Your task to perform on an android device: Open maps Image 0: 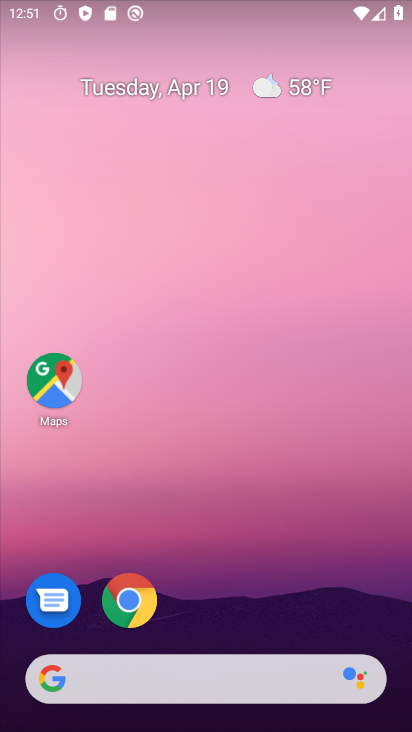
Step 0: drag from (210, 701) to (175, 314)
Your task to perform on an android device: Open maps Image 1: 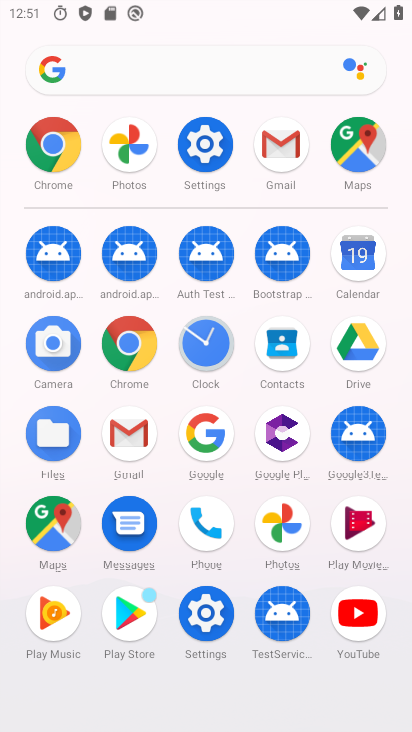
Step 1: click (334, 151)
Your task to perform on an android device: Open maps Image 2: 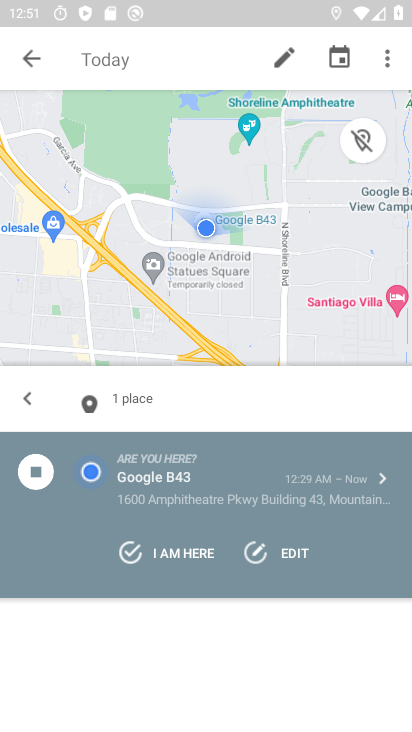
Step 2: click (34, 65)
Your task to perform on an android device: Open maps Image 3: 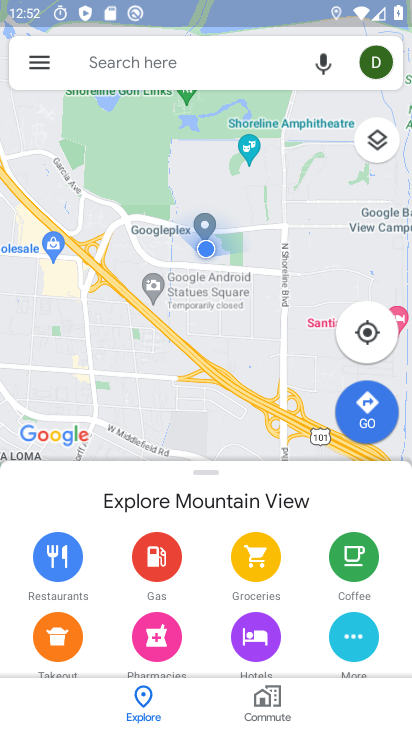
Step 3: click (177, 221)
Your task to perform on an android device: Open maps Image 4: 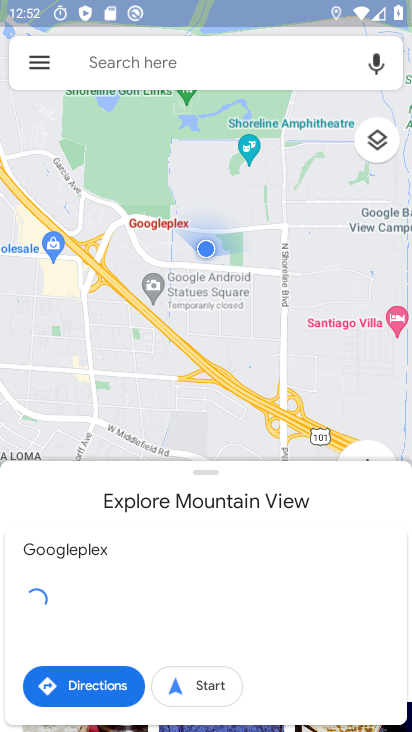
Step 4: task complete